Your task to perform on an android device: change your default location settings in chrome Image 0: 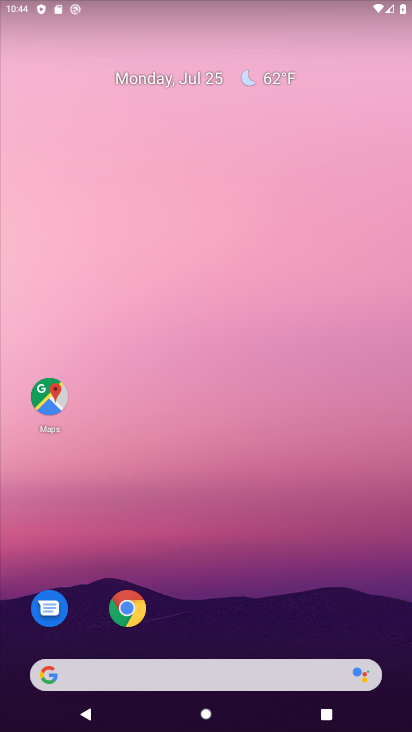
Step 0: drag from (223, 657) to (217, 191)
Your task to perform on an android device: change your default location settings in chrome Image 1: 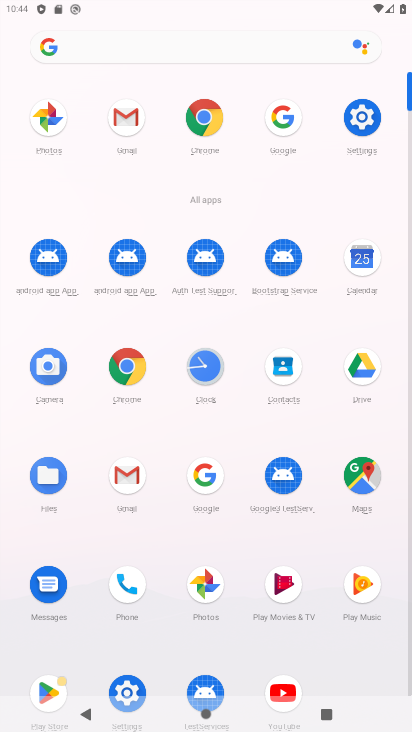
Step 1: click (129, 364)
Your task to perform on an android device: change your default location settings in chrome Image 2: 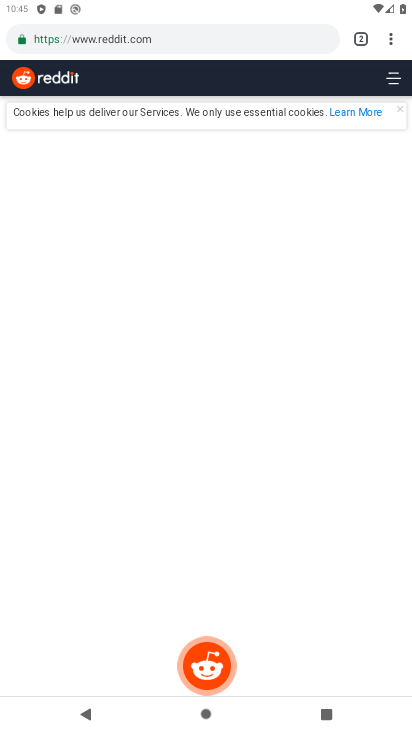
Step 2: click (392, 34)
Your task to perform on an android device: change your default location settings in chrome Image 3: 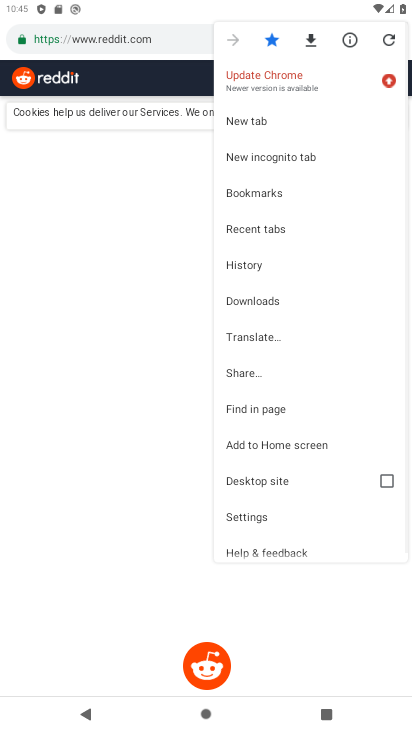
Step 3: click (264, 512)
Your task to perform on an android device: change your default location settings in chrome Image 4: 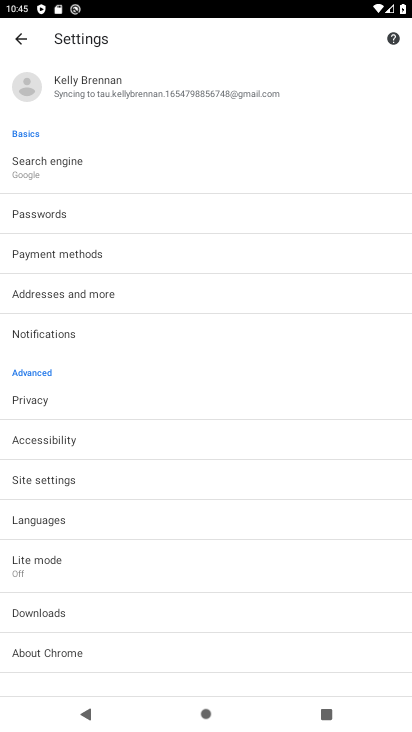
Step 4: click (26, 474)
Your task to perform on an android device: change your default location settings in chrome Image 5: 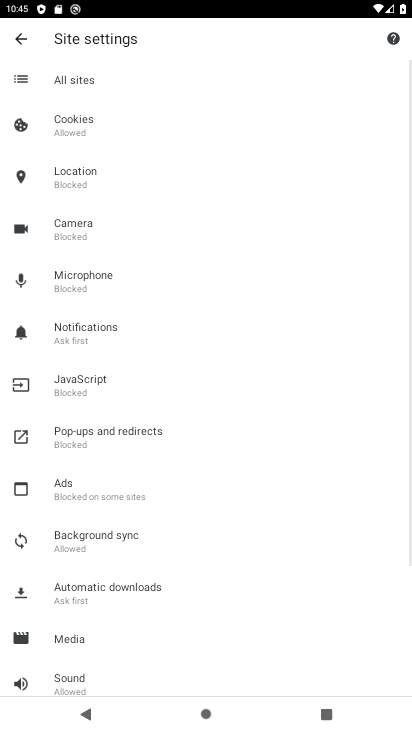
Step 5: click (74, 174)
Your task to perform on an android device: change your default location settings in chrome Image 6: 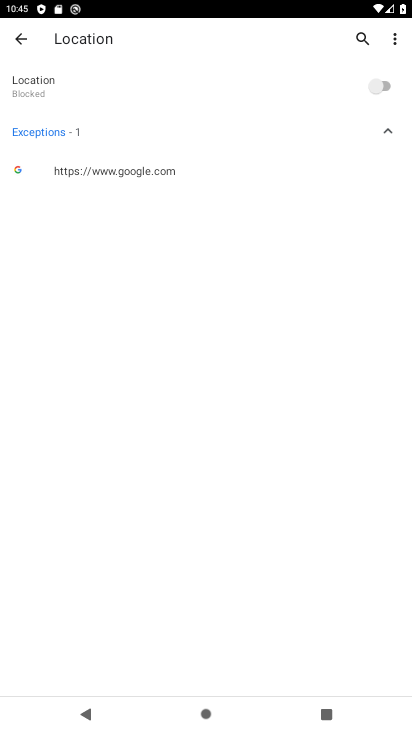
Step 6: click (384, 83)
Your task to perform on an android device: change your default location settings in chrome Image 7: 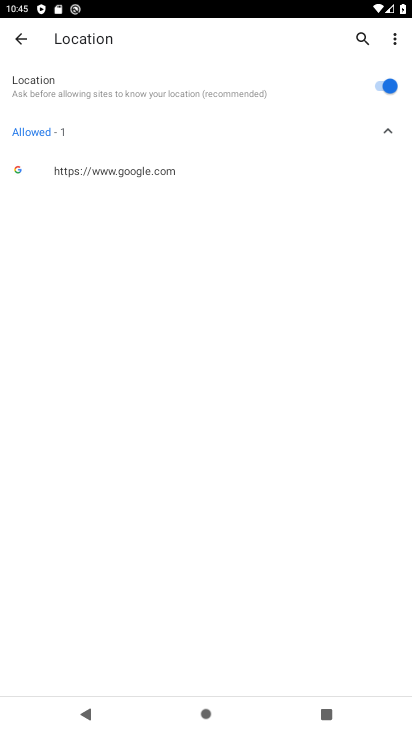
Step 7: task complete